Your task to perform on an android device: open a new tab in the chrome app Image 0: 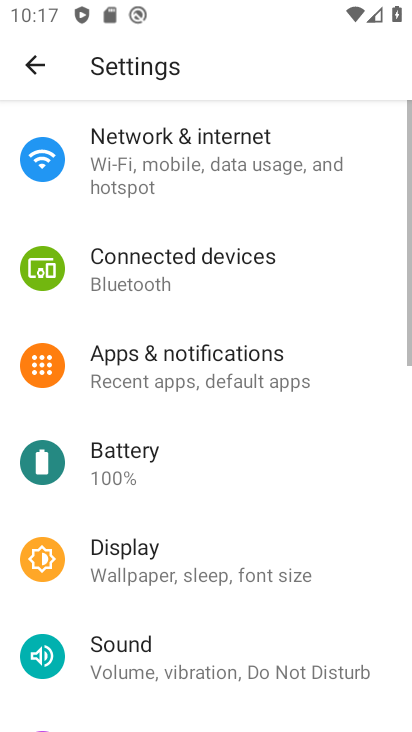
Step 0: press back button
Your task to perform on an android device: open a new tab in the chrome app Image 1: 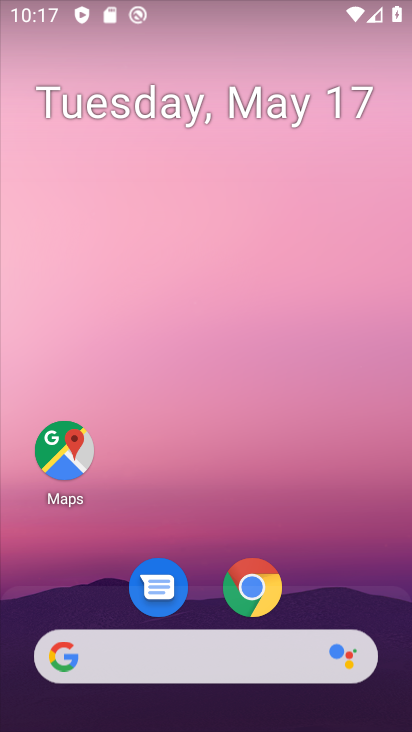
Step 1: click (253, 588)
Your task to perform on an android device: open a new tab in the chrome app Image 2: 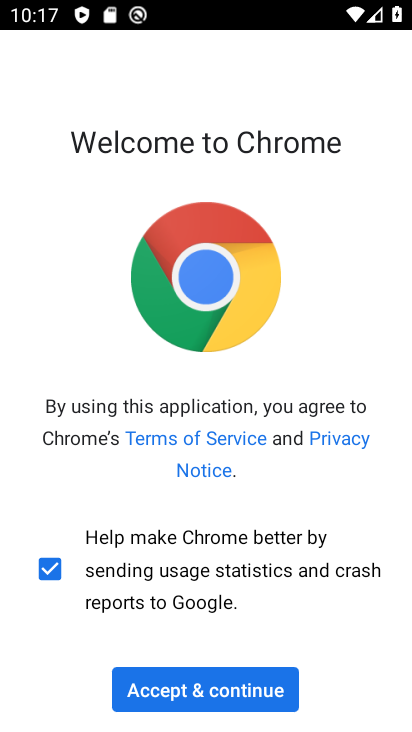
Step 2: click (221, 688)
Your task to perform on an android device: open a new tab in the chrome app Image 3: 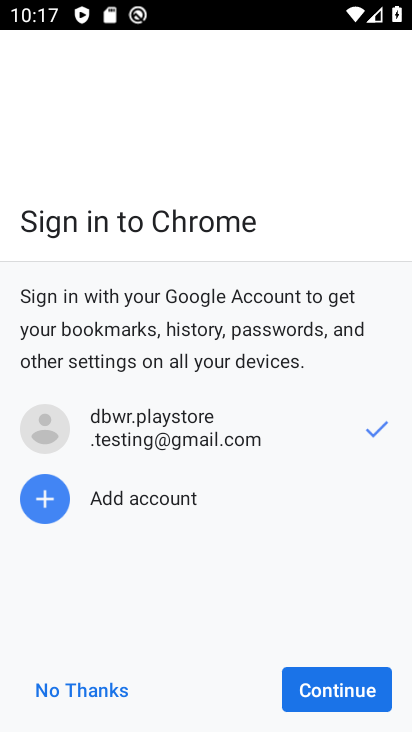
Step 3: click (329, 685)
Your task to perform on an android device: open a new tab in the chrome app Image 4: 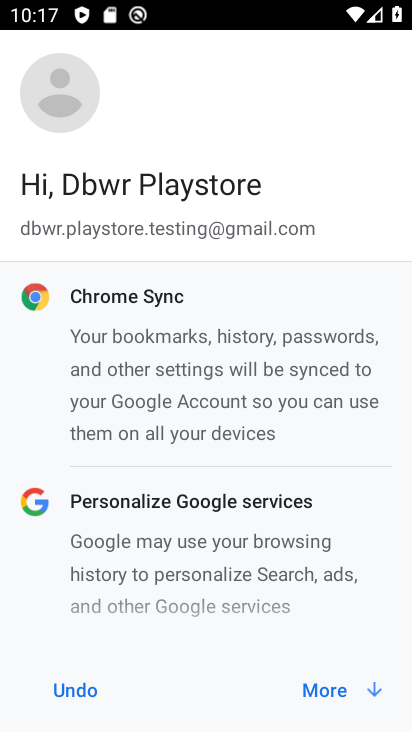
Step 4: click (329, 685)
Your task to perform on an android device: open a new tab in the chrome app Image 5: 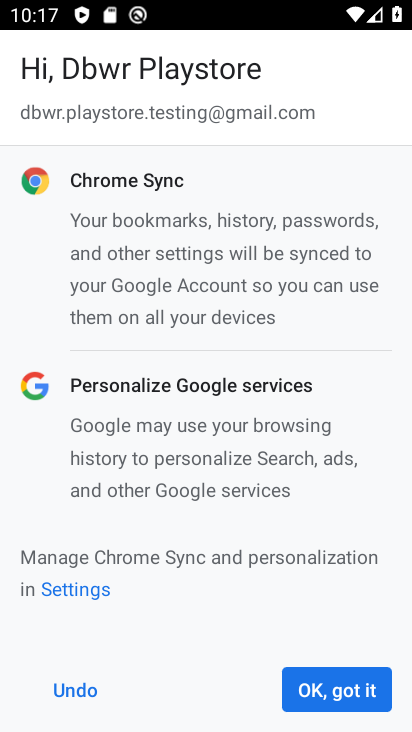
Step 5: click (329, 685)
Your task to perform on an android device: open a new tab in the chrome app Image 6: 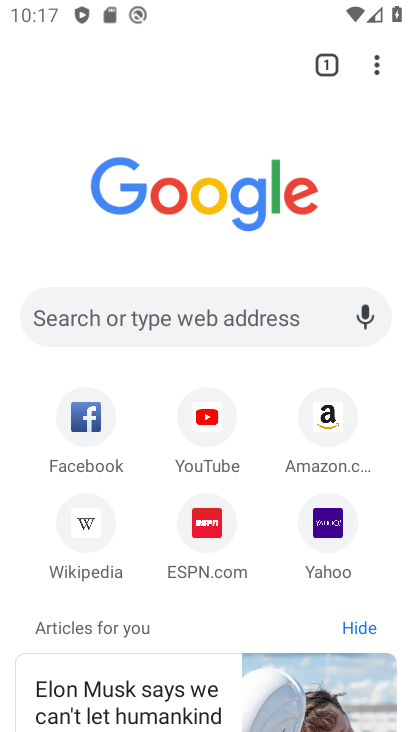
Step 6: click (378, 66)
Your task to perform on an android device: open a new tab in the chrome app Image 7: 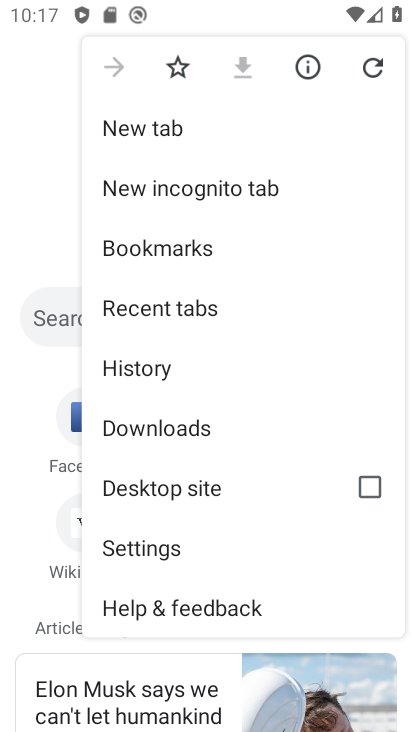
Step 7: click (173, 129)
Your task to perform on an android device: open a new tab in the chrome app Image 8: 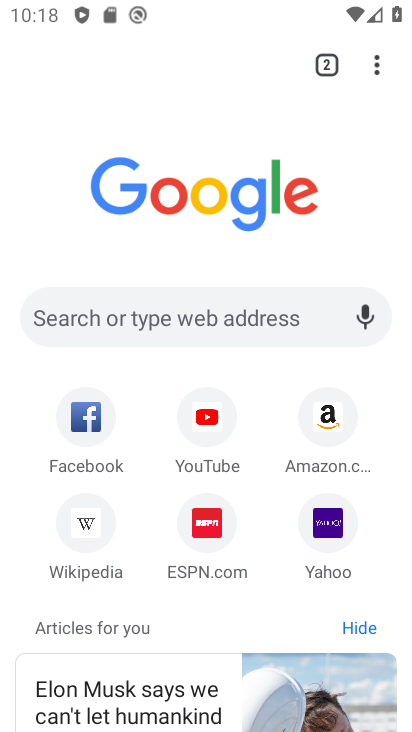
Step 8: task complete